Your task to perform on an android device: Open calendar and show me the second week of next month Image 0: 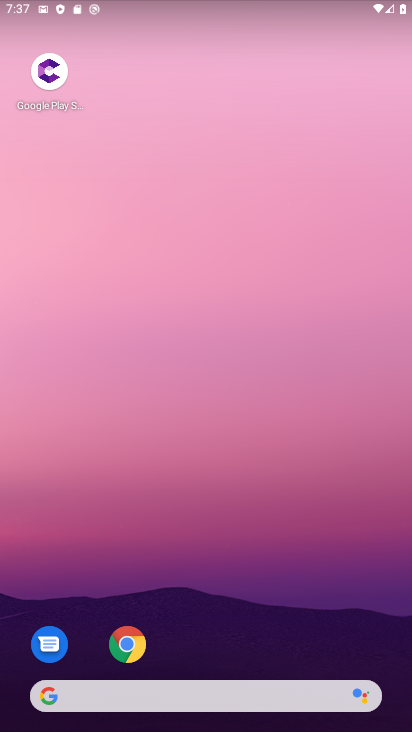
Step 0: drag from (13, 641) to (303, 87)
Your task to perform on an android device: Open calendar and show me the second week of next month Image 1: 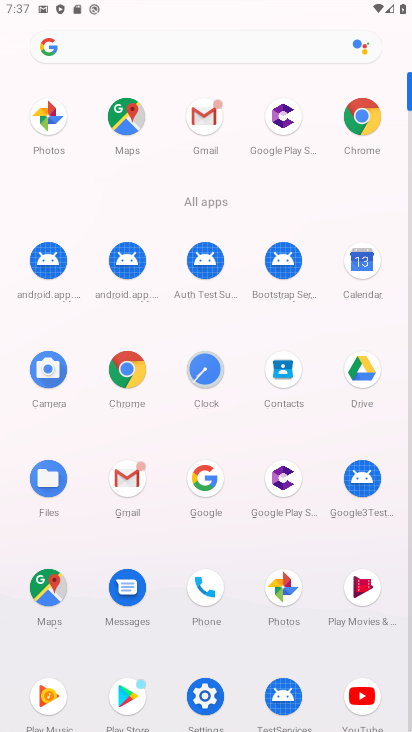
Step 1: click (351, 267)
Your task to perform on an android device: Open calendar and show me the second week of next month Image 2: 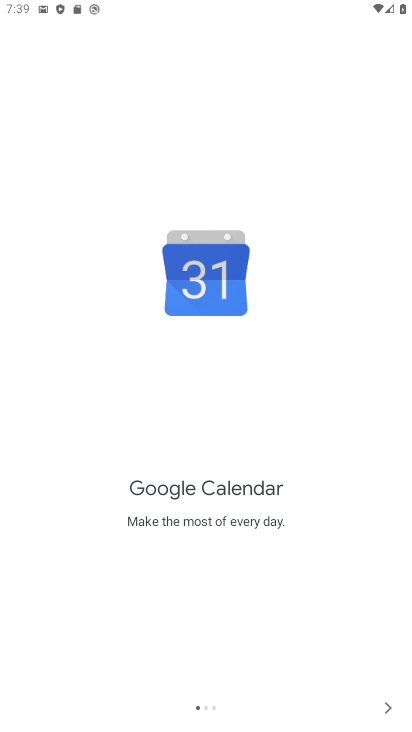
Step 2: click (390, 711)
Your task to perform on an android device: Open calendar and show me the second week of next month Image 3: 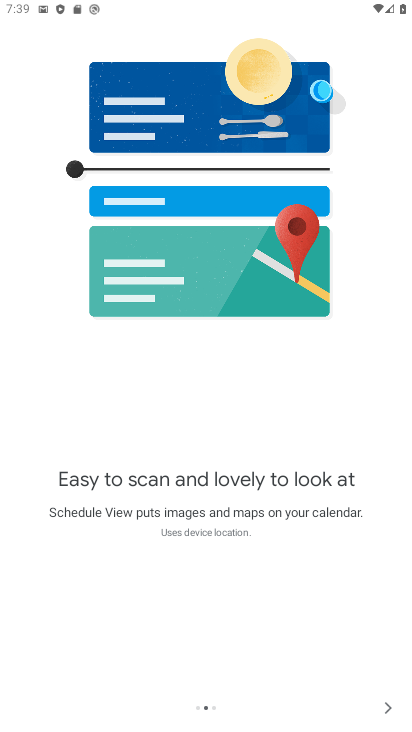
Step 3: click (390, 711)
Your task to perform on an android device: Open calendar and show me the second week of next month Image 4: 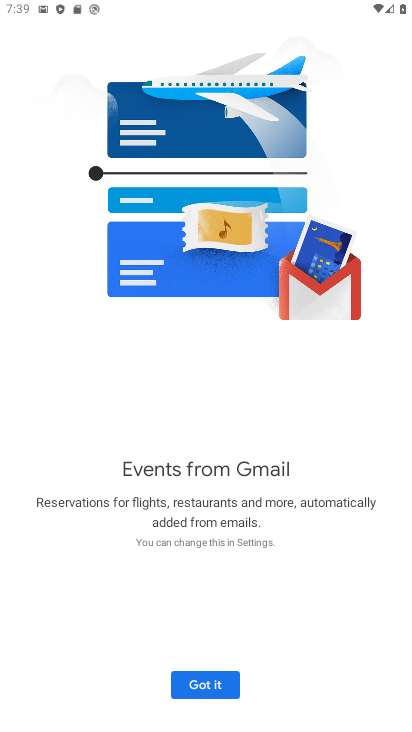
Step 4: click (390, 711)
Your task to perform on an android device: Open calendar and show me the second week of next month Image 5: 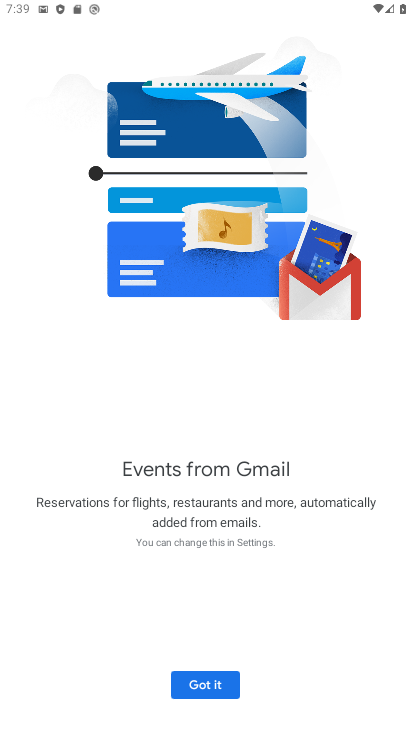
Step 5: click (187, 687)
Your task to perform on an android device: Open calendar and show me the second week of next month Image 6: 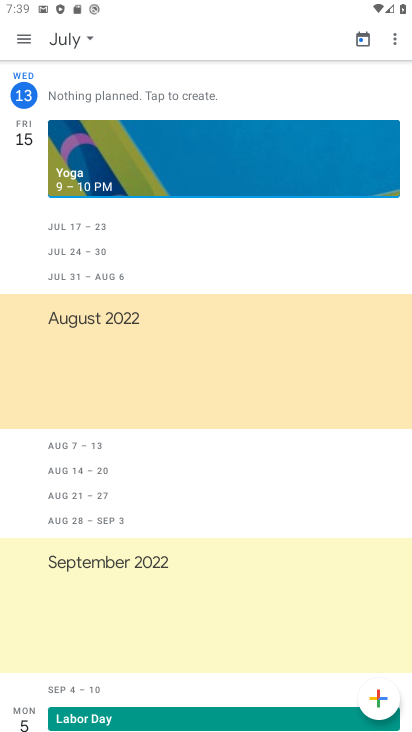
Step 6: click (81, 44)
Your task to perform on an android device: Open calendar and show me the second week of next month Image 7: 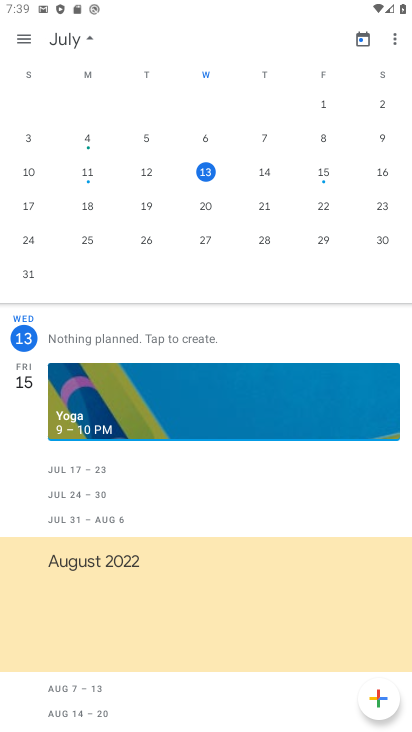
Step 7: drag from (360, 158) to (3, 376)
Your task to perform on an android device: Open calendar and show me the second week of next month Image 8: 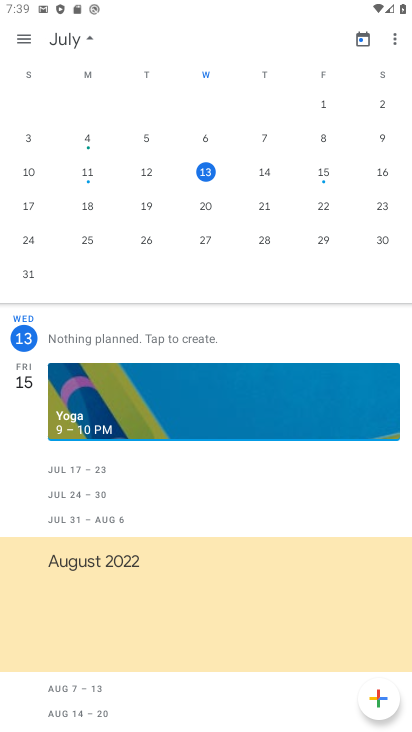
Step 8: drag from (405, 238) to (53, 265)
Your task to perform on an android device: Open calendar and show me the second week of next month Image 9: 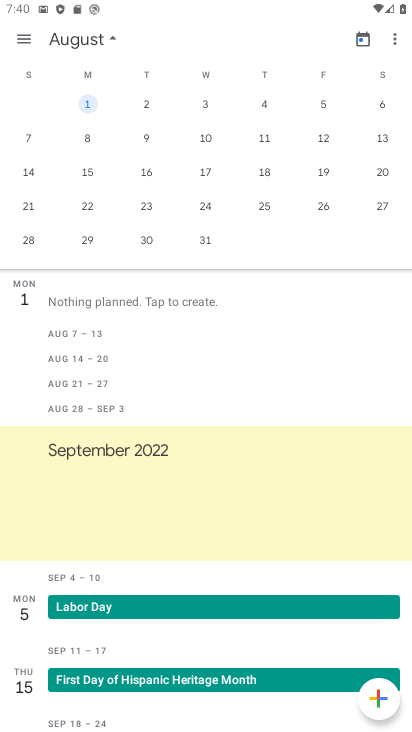
Step 9: click (150, 138)
Your task to perform on an android device: Open calendar and show me the second week of next month Image 10: 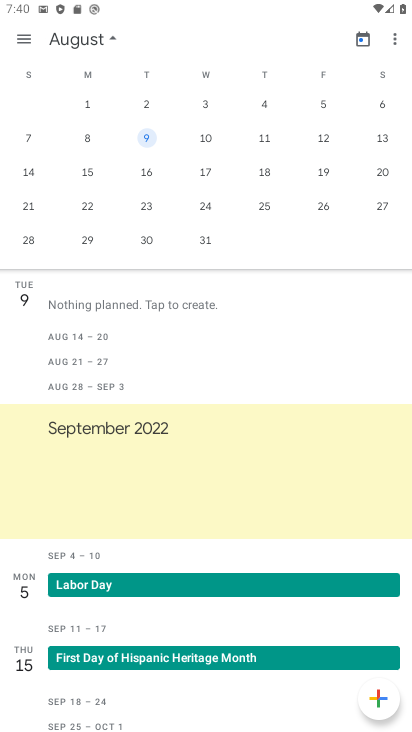
Step 10: click (89, 134)
Your task to perform on an android device: Open calendar and show me the second week of next month Image 11: 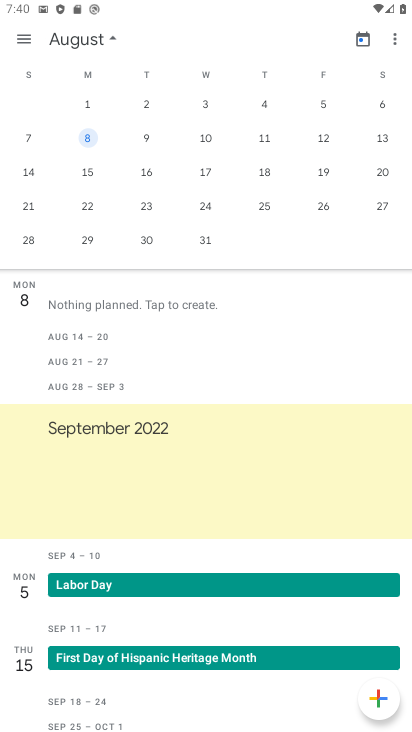
Step 11: task complete